Your task to perform on an android device: turn on the 12-hour format for clock Image 0: 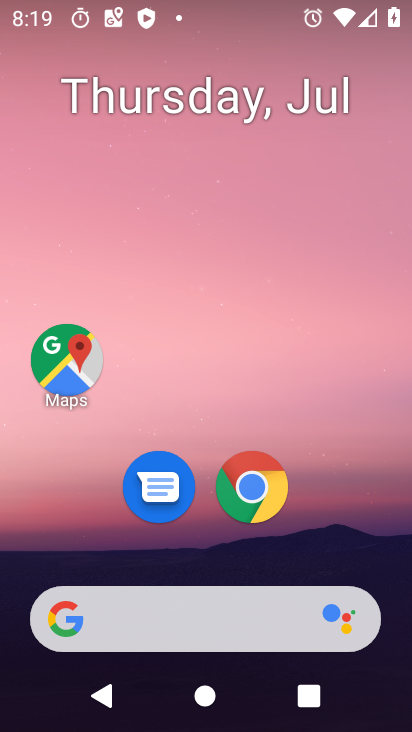
Step 0: drag from (246, 662) to (253, 33)
Your task to perform on an android device: turn on the 12-hour format for clock Image 1: 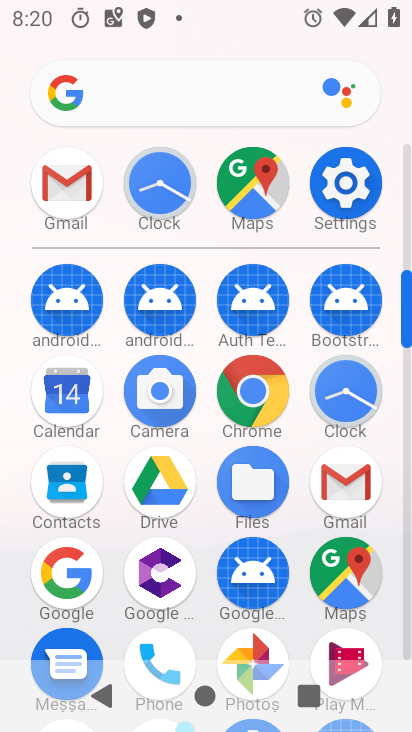
Step 1: click (367, 381)
Your task to perform on an android device: turn on the 12-hour format for clock Image 2: 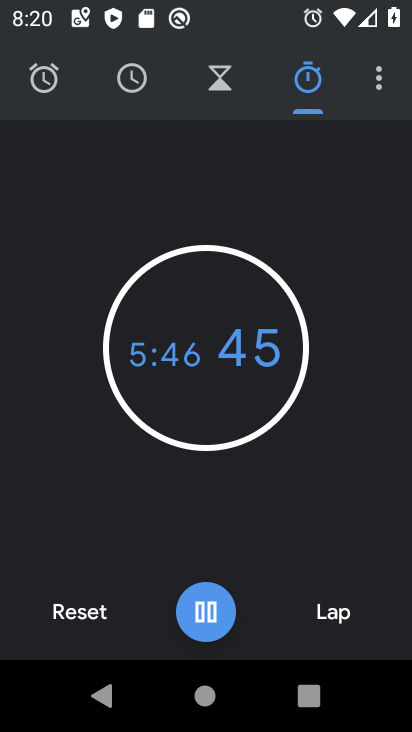
Step 2: click (370, 80)
Your task to perform on an android device: turn on the 12-hour format for clock Image 3: 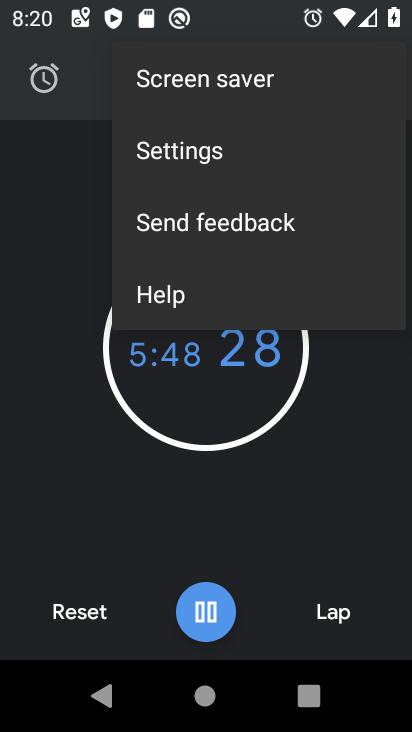
Step 3: click (194, 154)
Your task to perform on an android device: turn on the 12-hour format for clock Image 4: 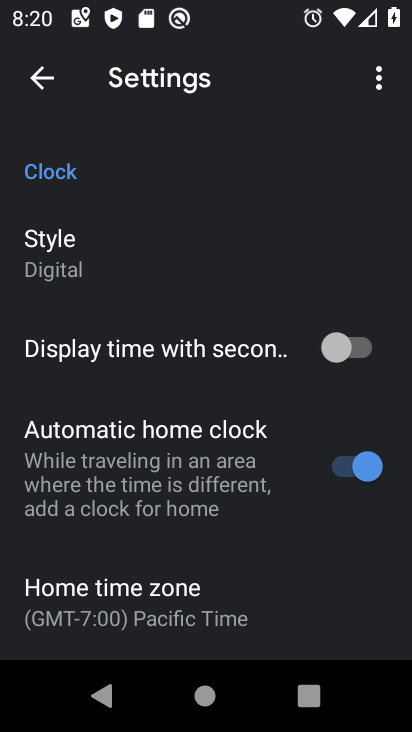
Step 4: drag from (262, 534) to (260, 272)
Your task to perform on an android device: turn on the 12-hour format for clock Image 5: 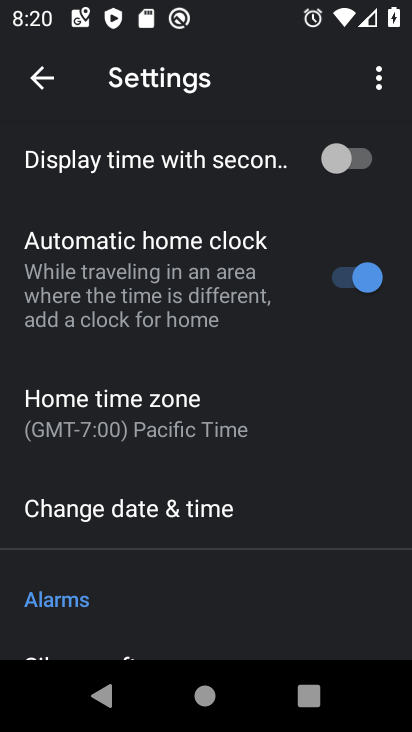
Step 5: click (179, 525)
Your task to perform on an android device: turn on the 12-hour format for clock Image 6: 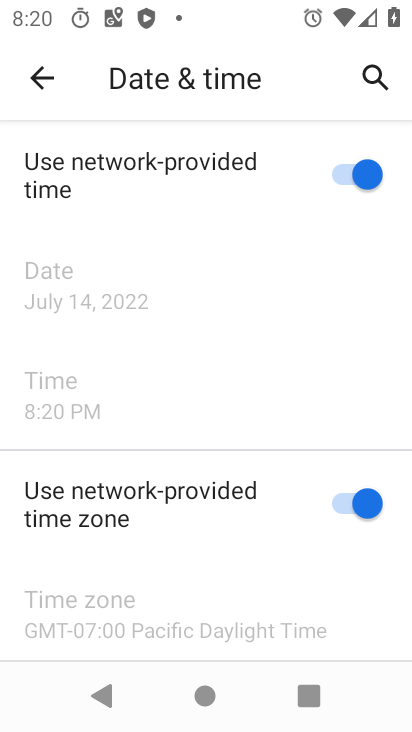
Step 6: task complete